Your task to perform on an android device: Go to Reddit.com Image 0: 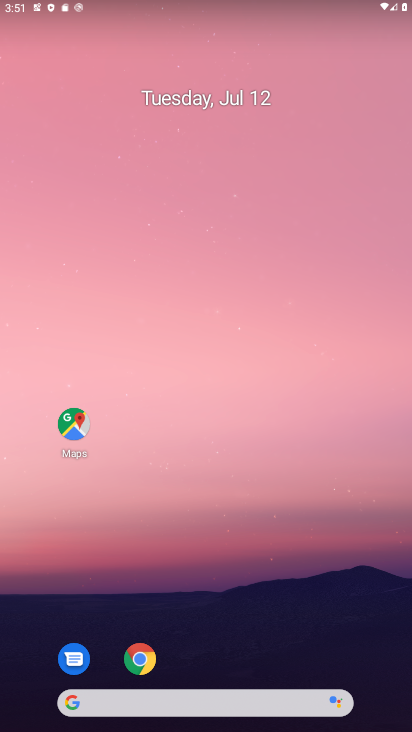
Step 0: click (141, 660)
Your task to perform on an android device: Go to Reddit.com Image 1: 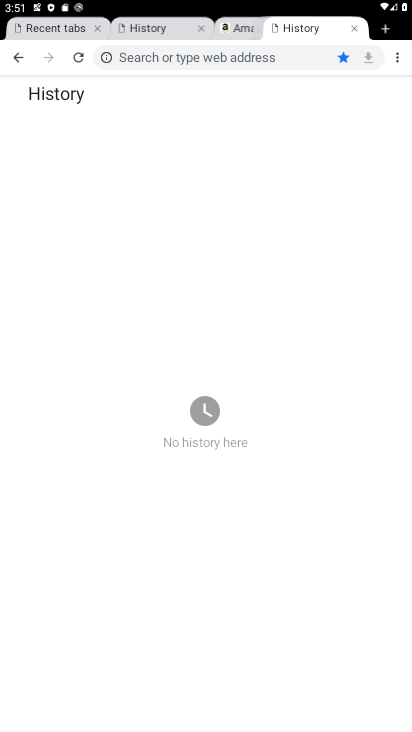
Step 1: click (398, 58)
Your task to perform on an android device: Go to Reddit.com Image 2: 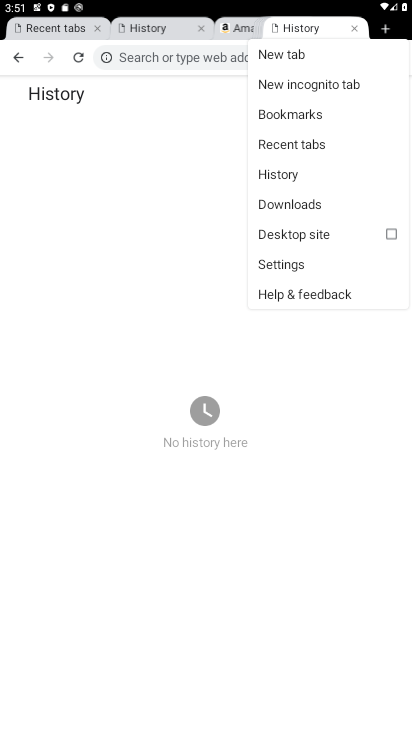
Step 2: click (287, 50)
Your task to perform on an android device: Go to Reddit.com Image 3: 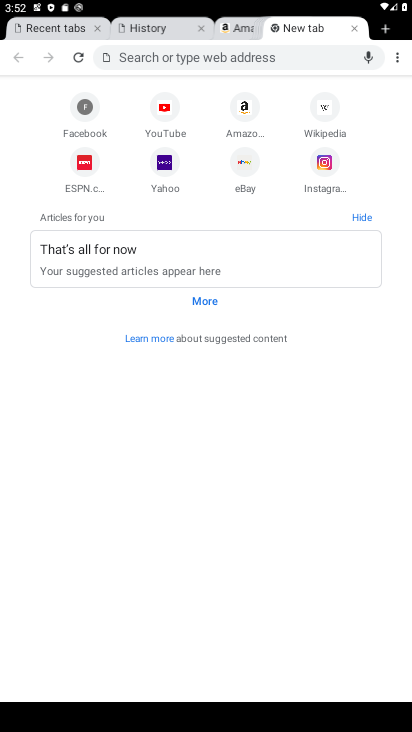
Step 3: type "Reddit.om"
Your task to perform on an android device: Go to Reddit.com Image 4: 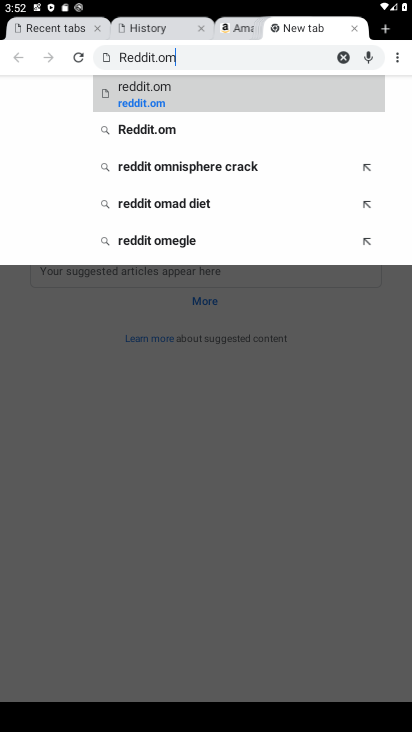
Step 4: click (227, 90)
Your task to perform on an android device: Go to Reddit.com Image 5: 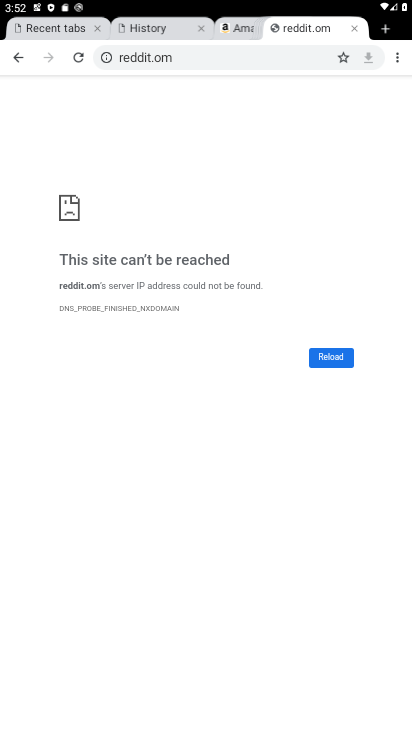
Step 5: task complete